Your task to perform on an android device: Show me popular videos on Youtube Image 0: 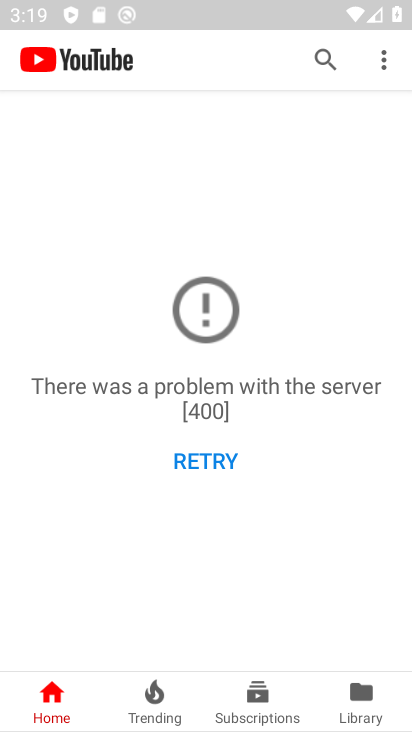
Step 0: press home button
Your task to perform on an android device: Show me popular videos on Youtube Image 1: 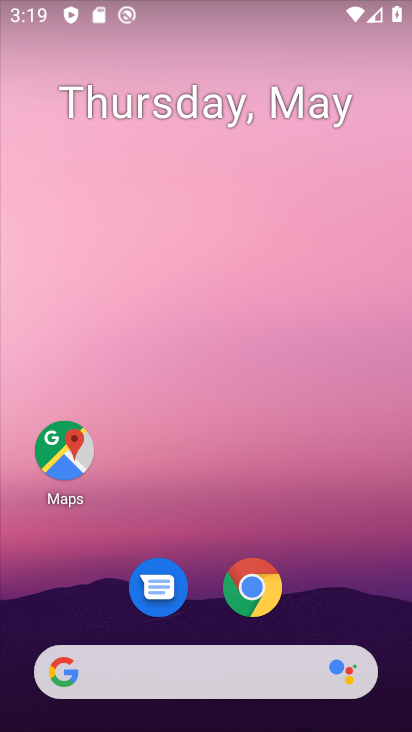
Step 1: drag from (220, 662) to (220, 244)
Your task to perform on an android device: Show me popular videos on Youtube Image 2: 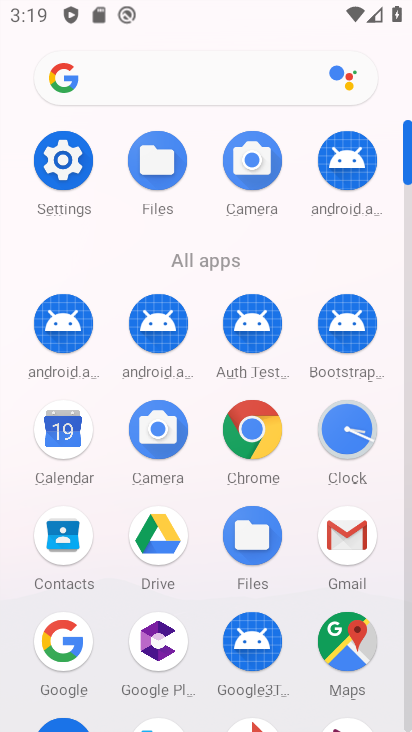
Step 2: drag from (209, 647) to (216, 365)
Your task to perform on an android device: Show me popular videos on Youtube Image 3: 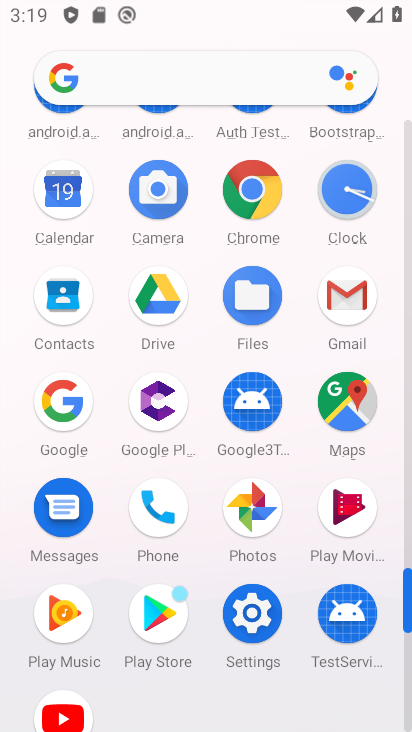
Step 3: click (52, 707)
Your task to perform on an android device: Show me popular videos on Youtube Image 4: 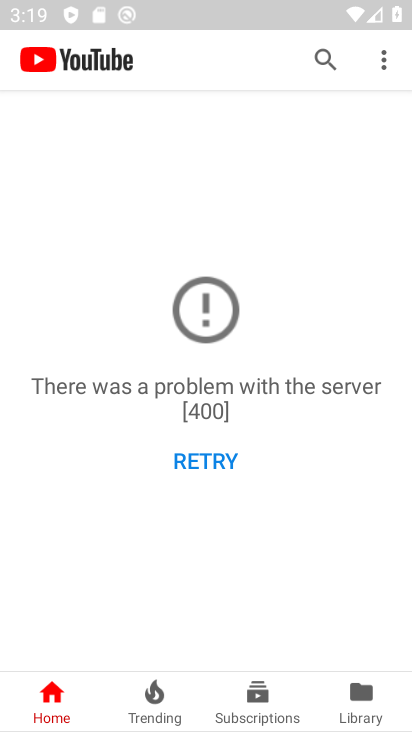
Step 4: task complete